Your task to perform on an android device: Go to notification settings Image 0: 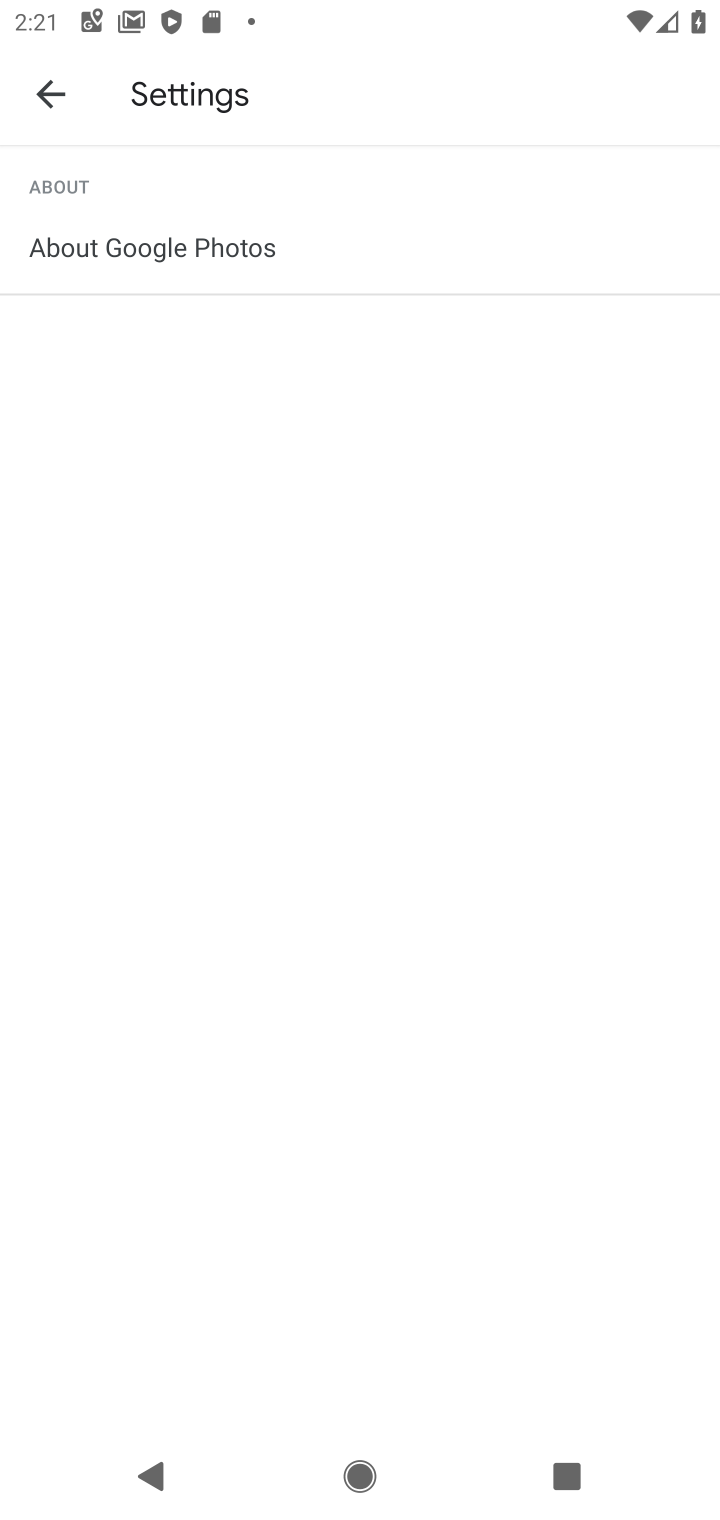
Step 0: press home button
Your task to perform on an android device: Go to notification settings Image 1: 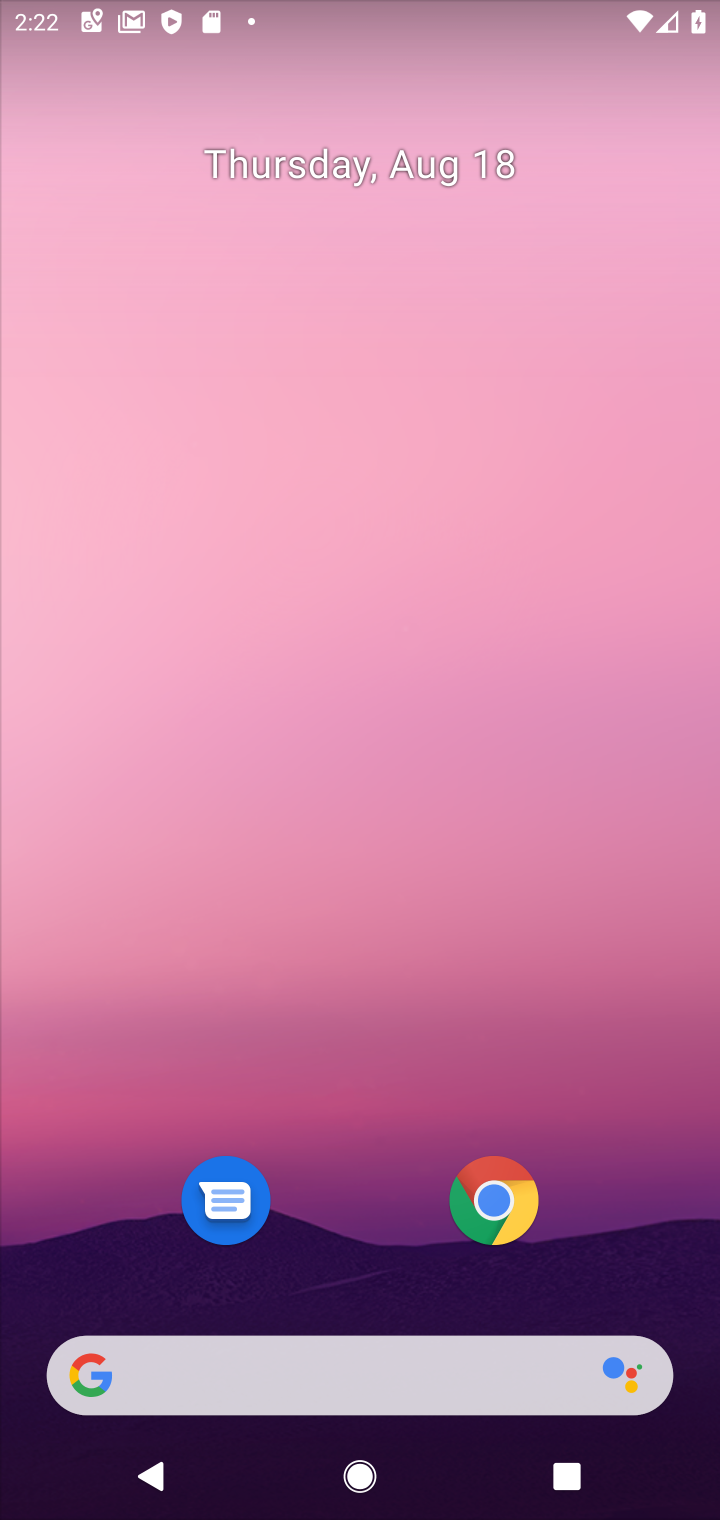
Step 1: drag from (388, 1128) to (410, 389)
Your task to perform on an android device: Go to notification settings Image 2: 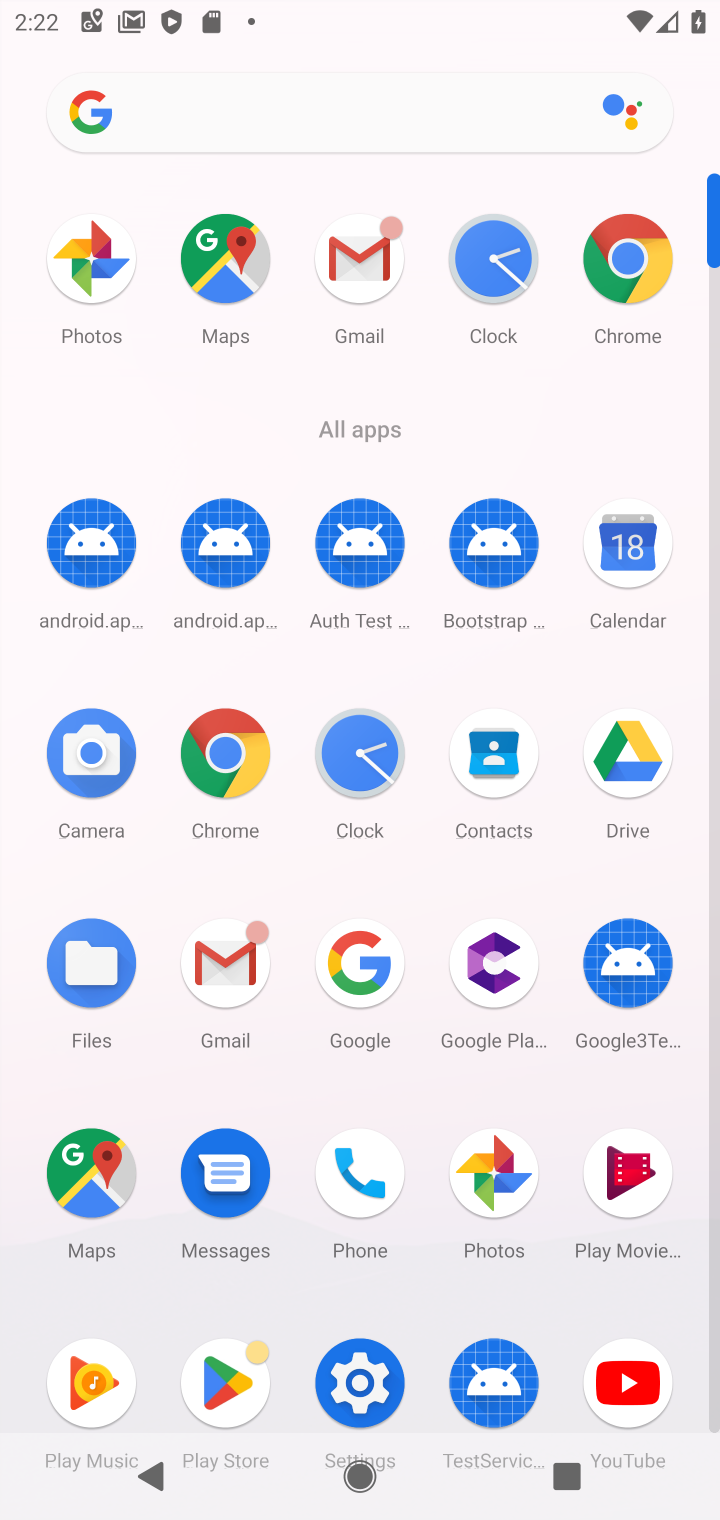
Step 2: click (359, 1361)
Your task to perform on an android device: Go to notification settings Image 3: 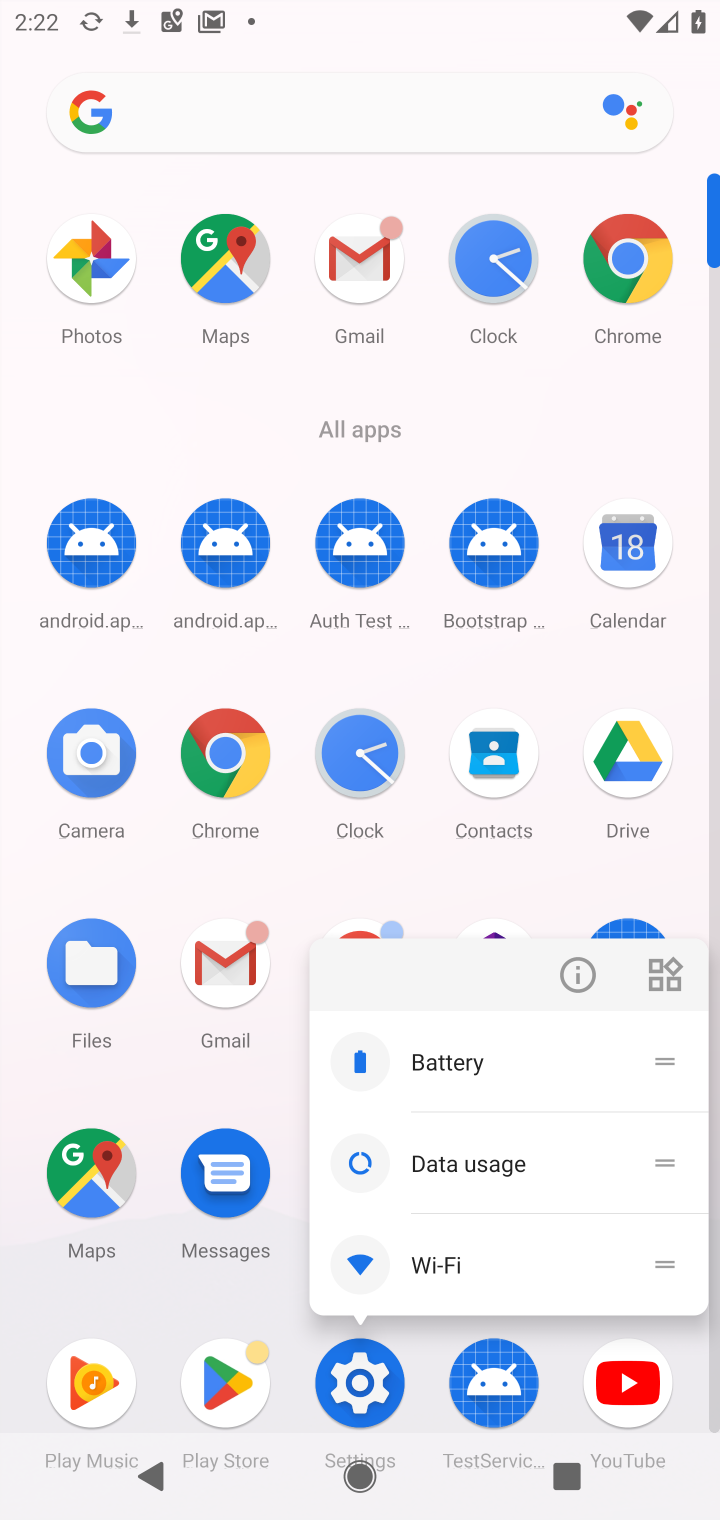
Step 3: click (348, 1346)
Your task to perform on an android device: Go to notification settings Image 4: 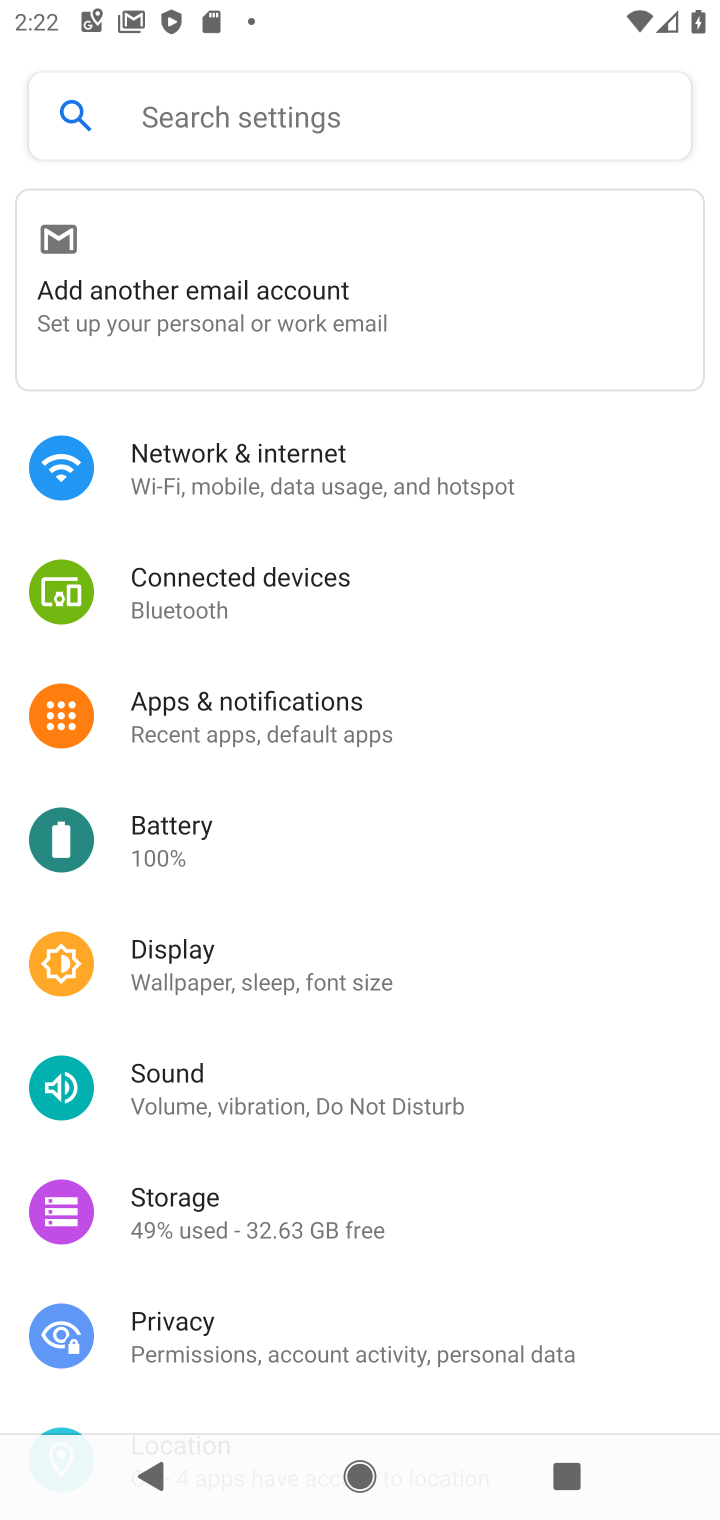
Step 4: click (257, 703)
Your task to perform on an android device: Go to notification settings Image 5: 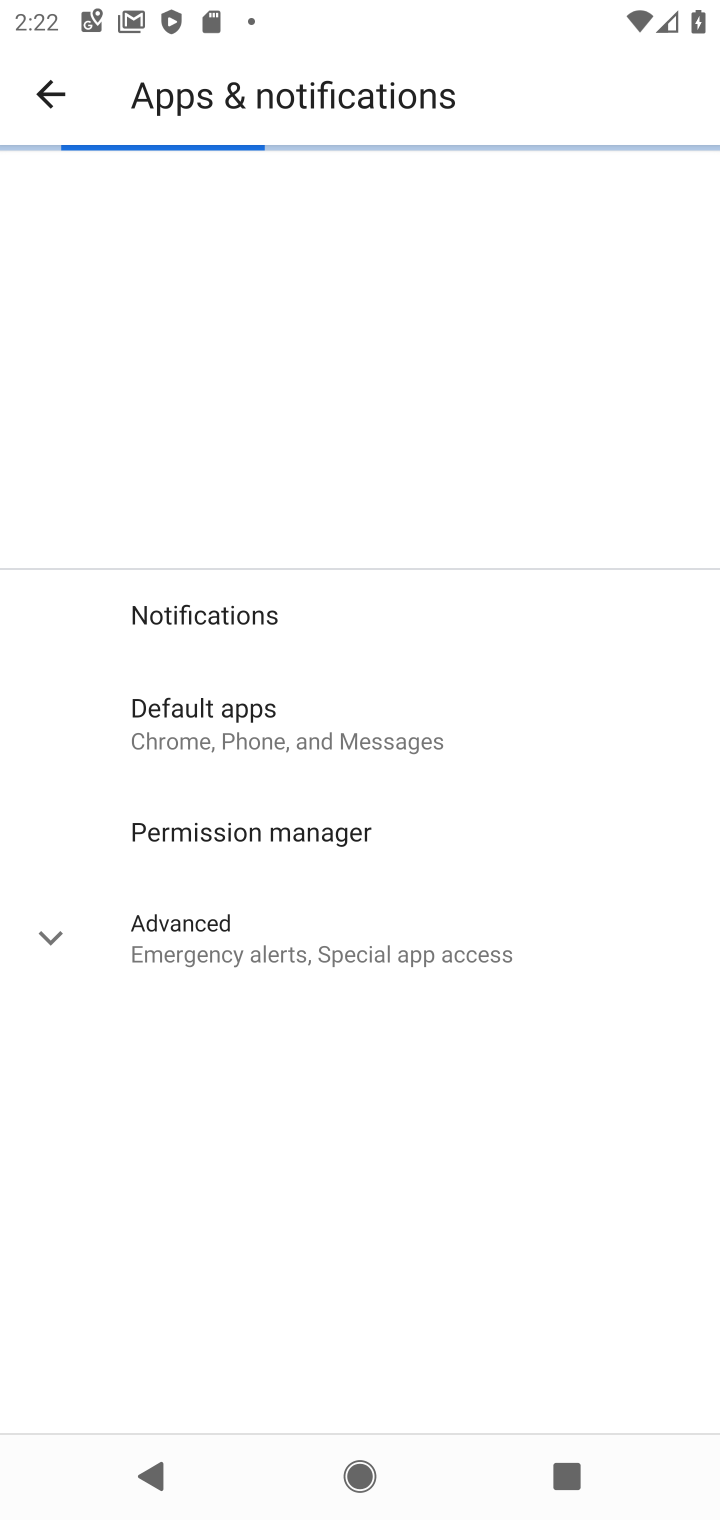
Step 5: click (238, 605)
Your task to perform on an android device: Go to notification settings Image 6: 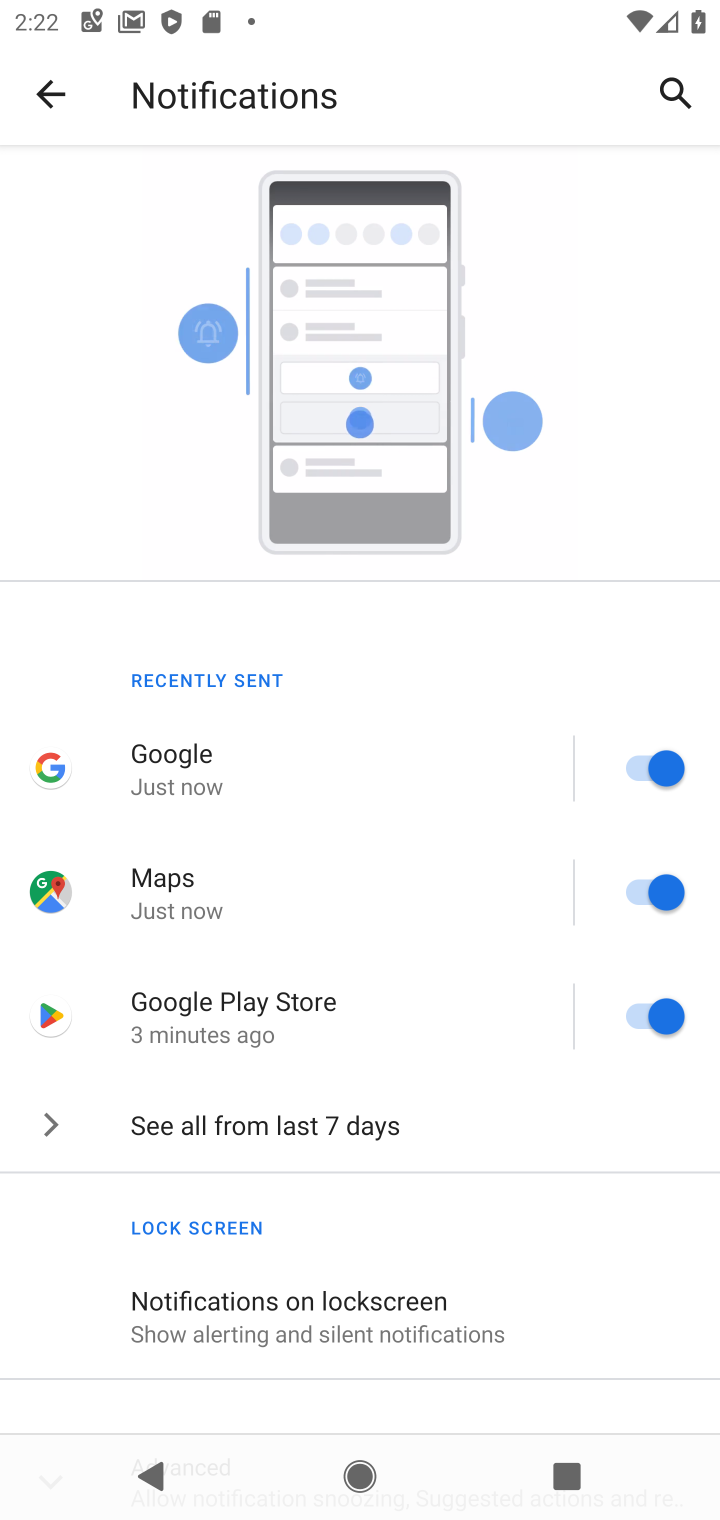
Step 6: task complete